Your task to perform on an android device: Open calendar and show me the third week of next month Image 0: 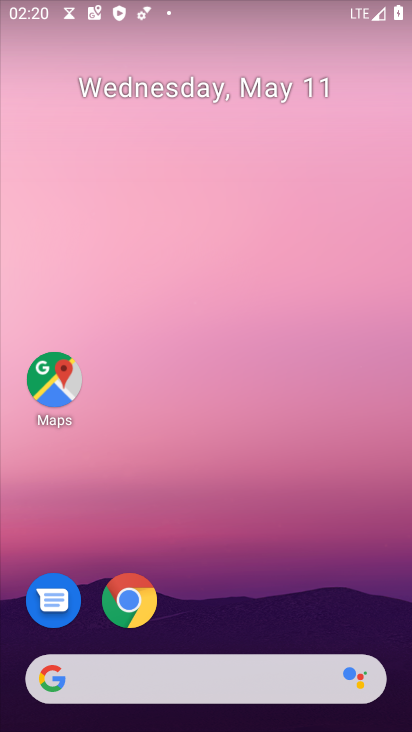
Step 0: drag from (307, 590) to (305, 147)
Your task to perform on an android device: Open calendar and show me the third week of next month Image 1: 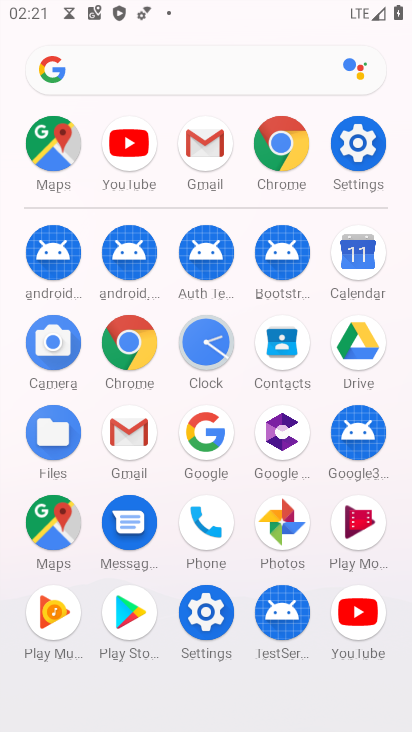
Step 1: click (356, 246)
Your task to perform on an android device: Open calendar and show me the third week of next month Image 2: 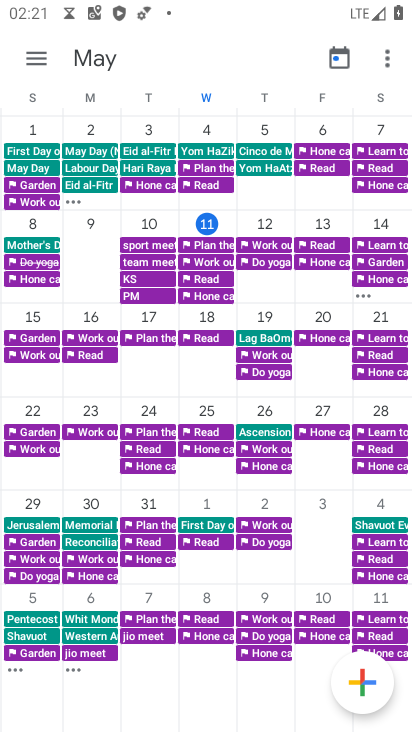
Step 2: task complete